Your task to perform on an android device: Open sound settings Image 0: 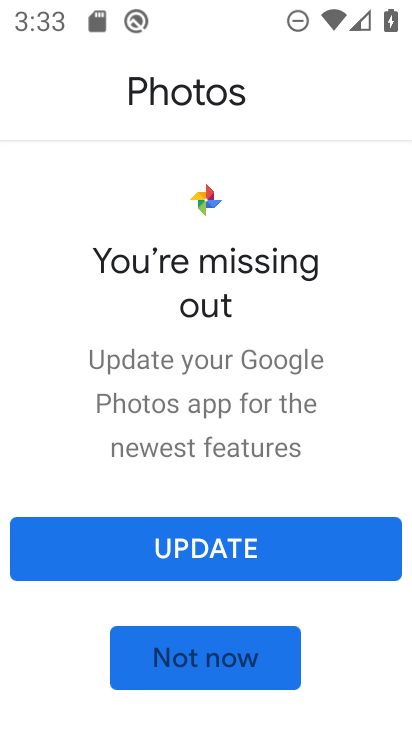
Step 0: press home button
Your task to perform on an android device: Open sound settings Image 1: 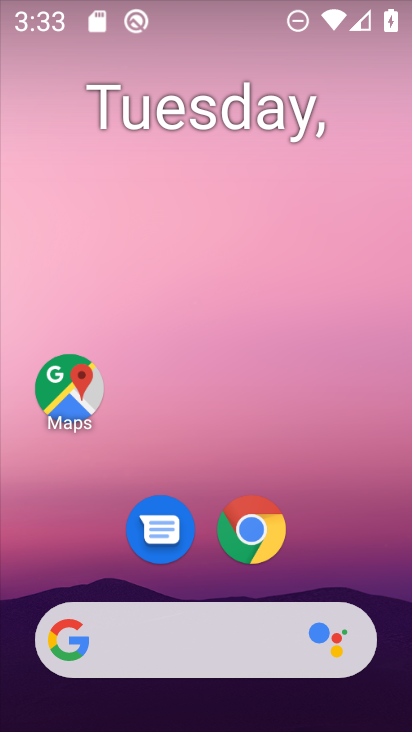
Step 1: drag from (310, 270) to (310, 143)
Your task to perform on an android device: Open sound settings Image 2: 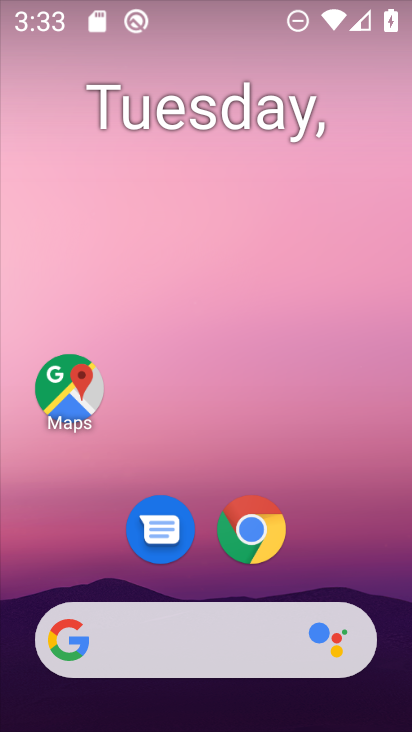
Step 2: drag from (276, 572) to (291, 181)
Your task to perform on an android device: Open sound settings Image 3: 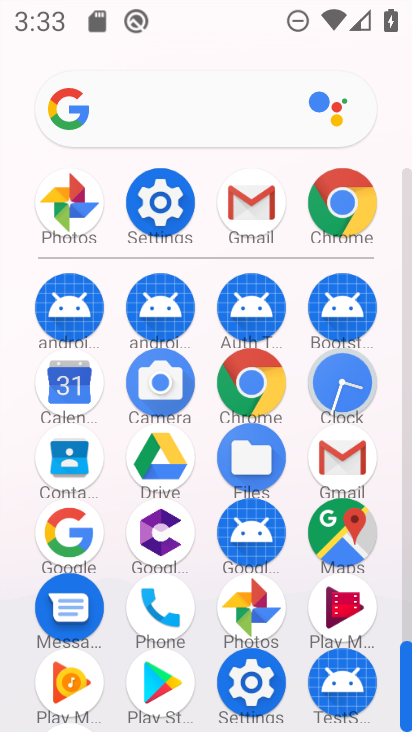
Step 3: click (346, 380)
Your task to perform on an android device: Open sound settings Image 4: 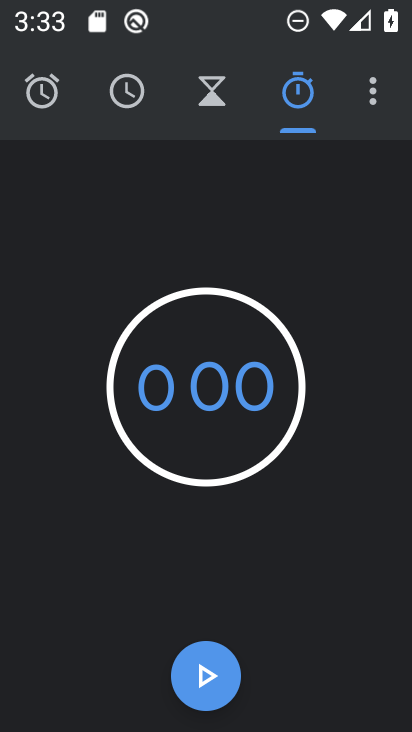
Step 4: click (376, 90)
Your task to perform on an android device: Open sound settings Image 5: 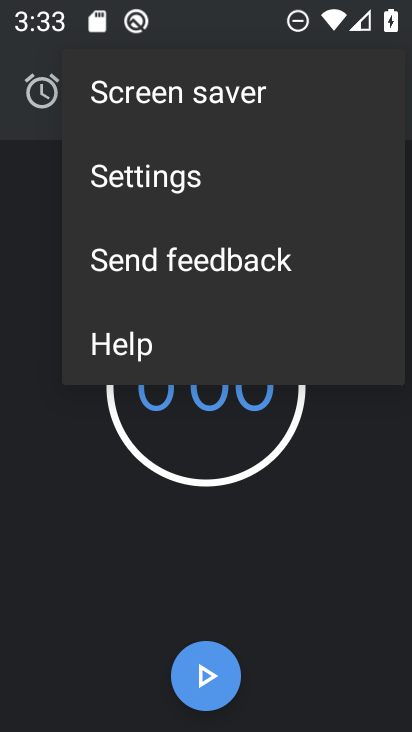
Step 5: click (186, 159)
Your task to perform on an android device: Open sound settings Image 6: 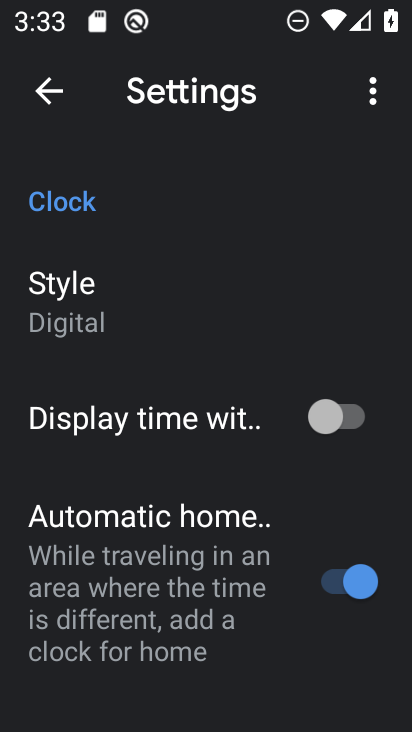
Step 6: drag from (221, 480) to (220, 214)
Your task to perform on an android device: Open sound settings Image 7: 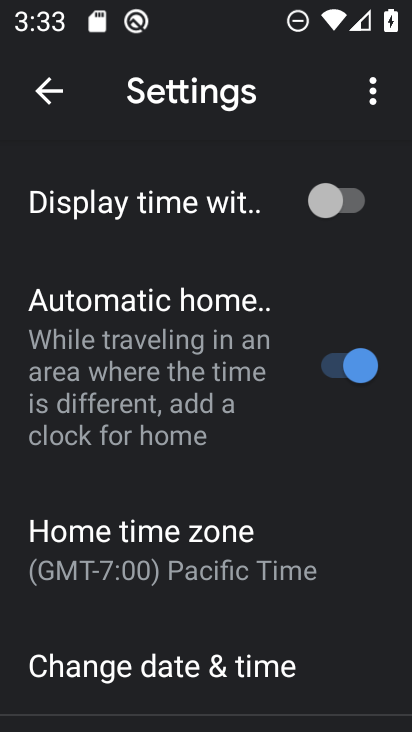
Step 7: drag from (192, 604) to (164, 288)
Your task to perform on an android device: Open sound settings Image 8: 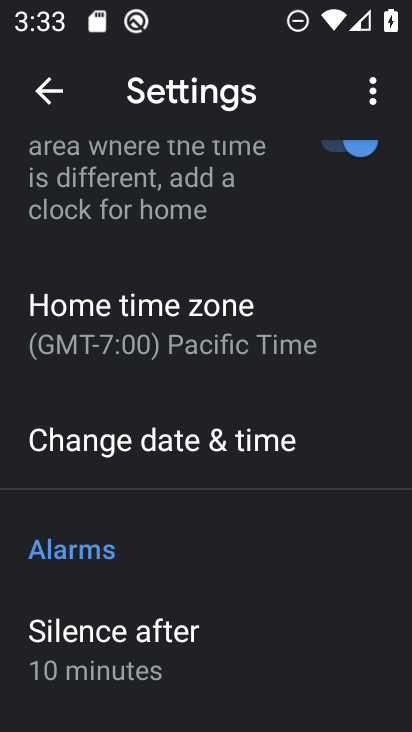
Step 8: drag from (135, 630) to (191, 269)
Your task to perform on an android device: Open sound settings Image 9: 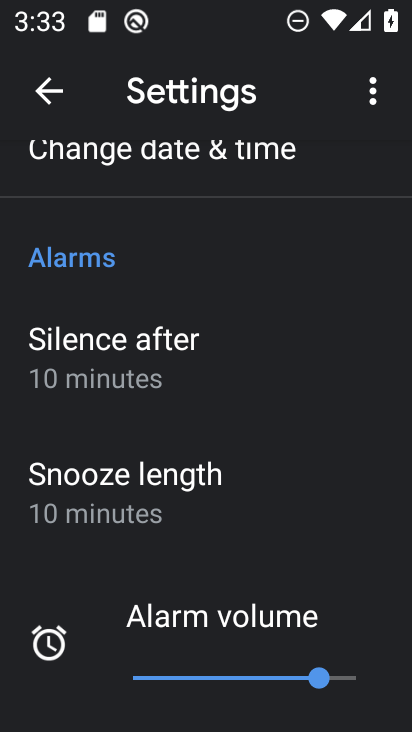
Step 9: drag from (160, 573) to (198, 284)
Your task to perform on an android device: Open sound settings Image 10: 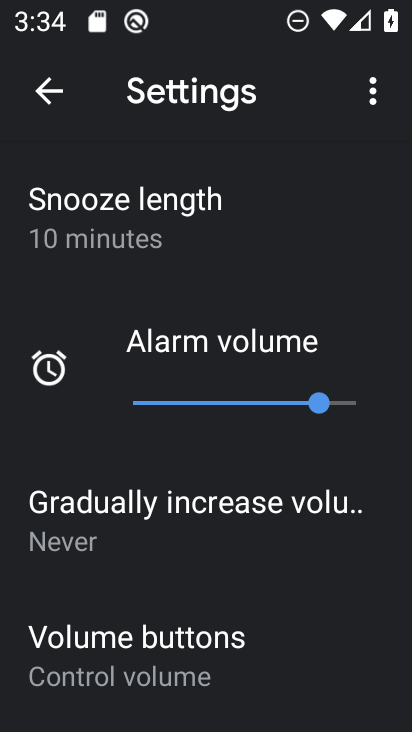
Step 10: drag from (150, 631) to (194, 290)
Your task to perform on an android device: Open sound settings Image 11: 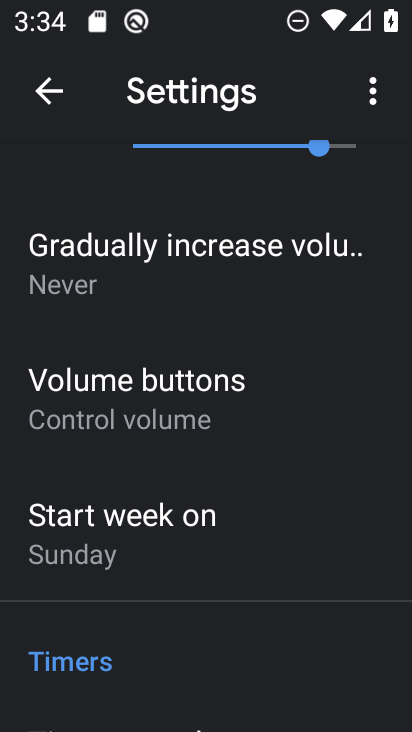
Step 11: drag from (165, 536) to (210, 175)
Your task to perform on an android device: Open sound settings Image 12: 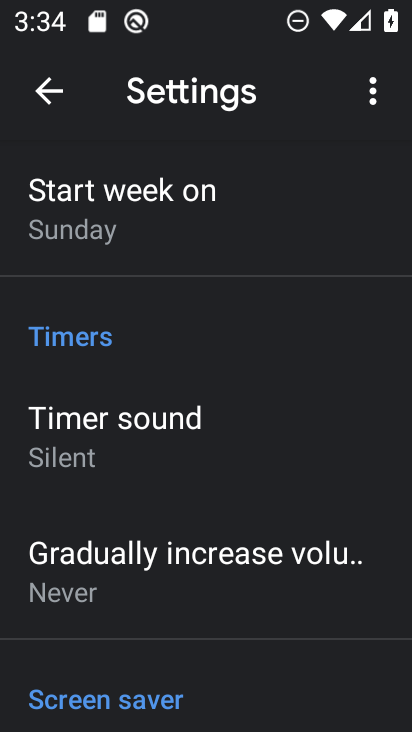
Step 12: click (152, 457)
Your task to perform on an android device: Open sound settings Image 13: 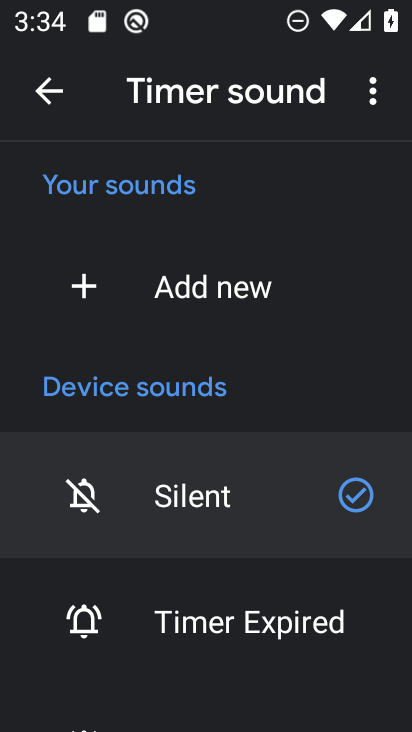
Step 13: task complete